Your task to perform on an android device: change the clock style Image 0: 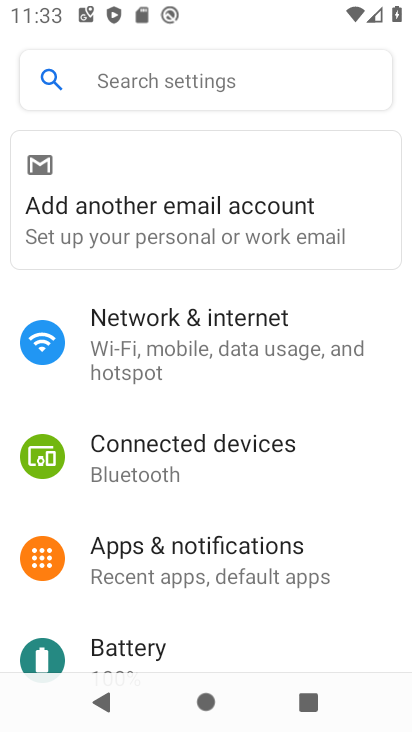
Step 0: press home button
Your task to perform on an android device: change the clock style Image 1: 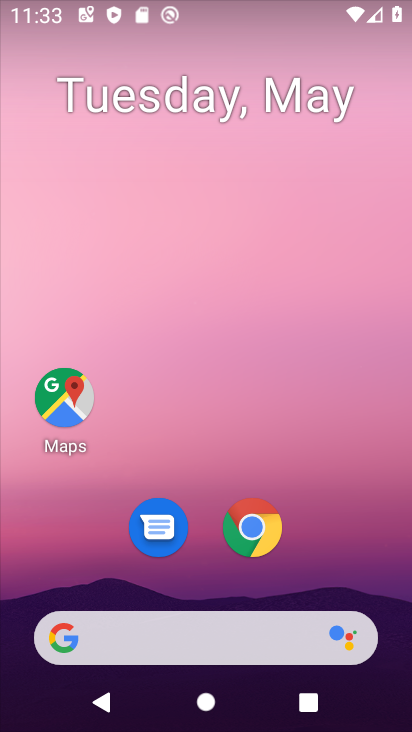
Step 1: drag from (267, 583) to (204, 68)
Your task to perform on an android device: change the clock style Image 2: 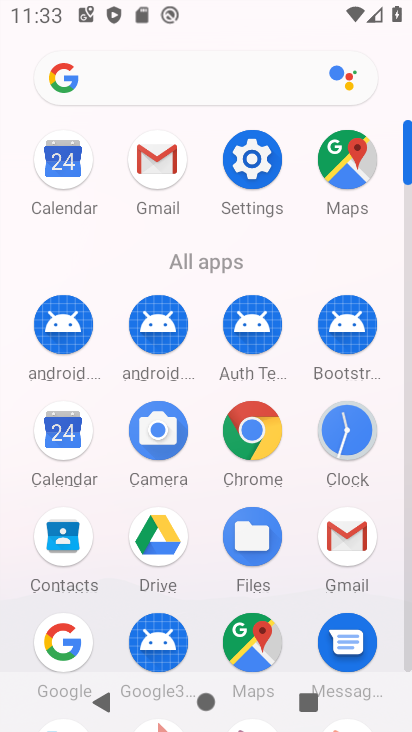
Step 2: click (331, 426)
Your task to perform on an android device: change the clock style Image 3: 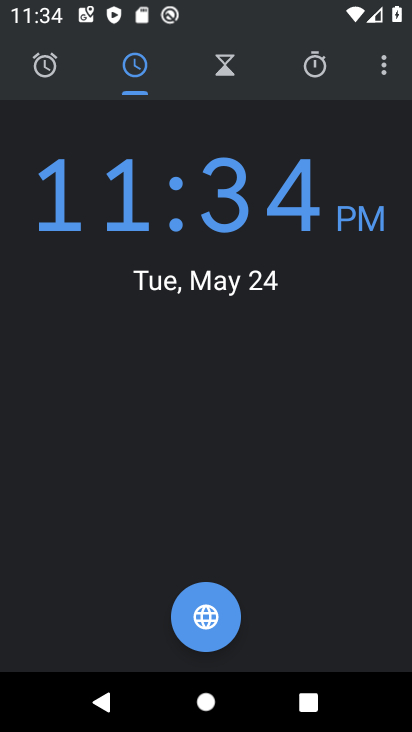
Step 3: click (377, 56)
Your task to perform on an android device: change the clock style Image 4: 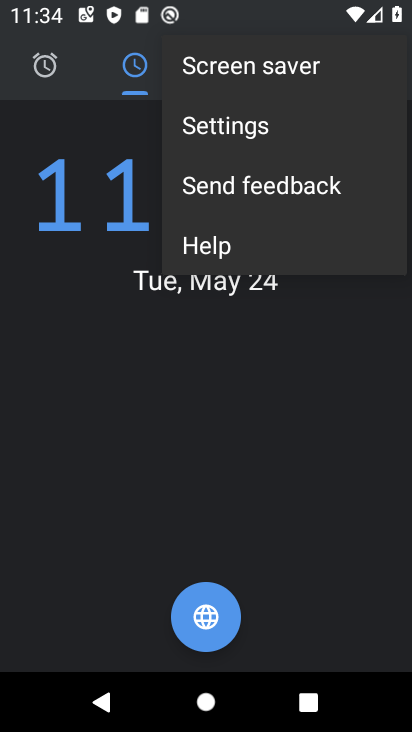
Step 4: click (254, 139)
Your task to perform on an android device: change the clock style Image 5: 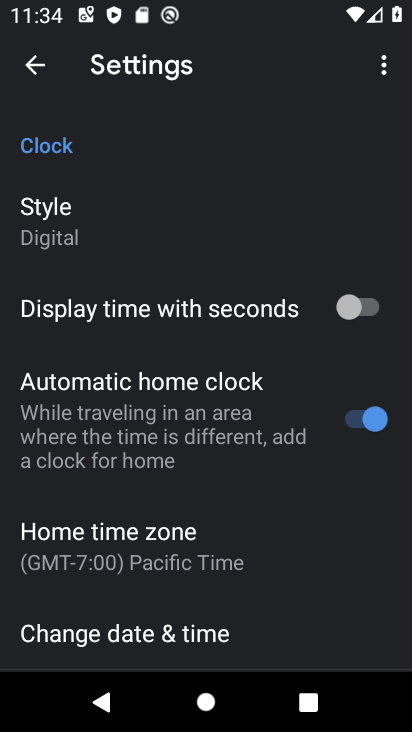
Step 5: click (174, 242)
Your task to perform on an android device: change the clock style Image 6: 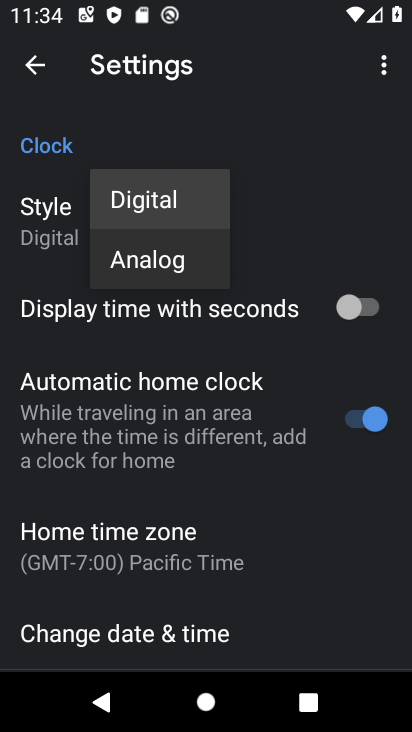
Step 6: click (133, 230)
Your task to perform on an android device: change the clock style Image 7: 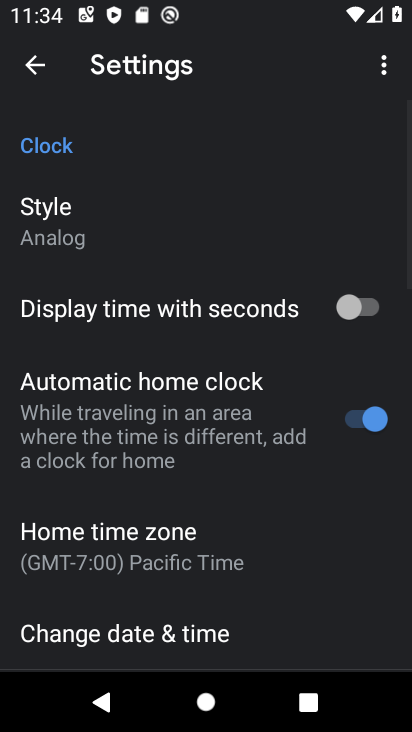
Step 7: task complete